Your task to perform on an android device: Show me popular games on the Play Store Image 0: 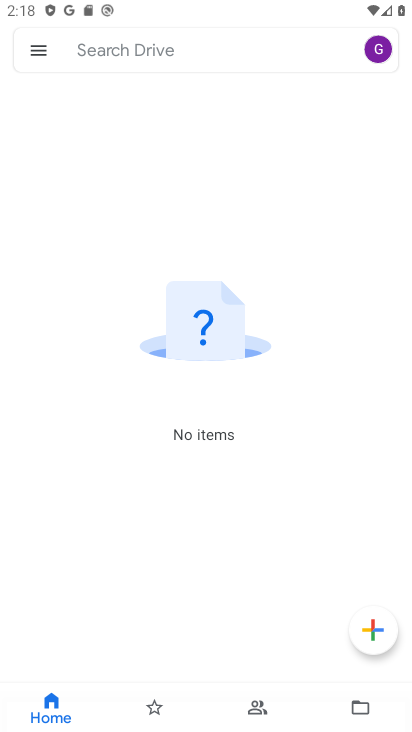
Step 0: press home button
Your task to perform on an android device: Show me popular games on the Play Store Image 1: 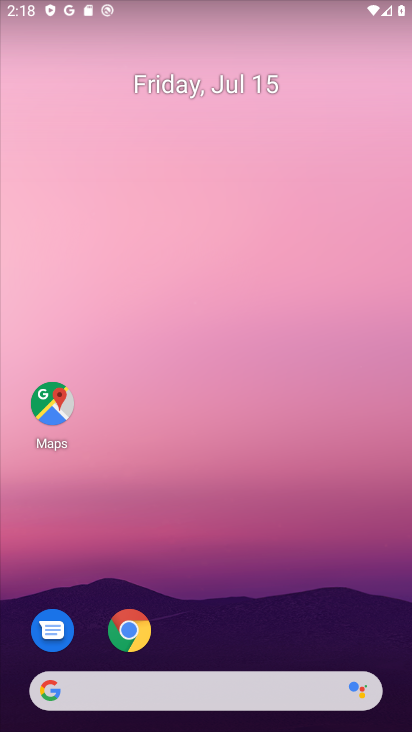
Step 1: drag from (215, 681) to (206, 176)
Your task to perform on an android device: Show me popular games on the Play Store Image 2: 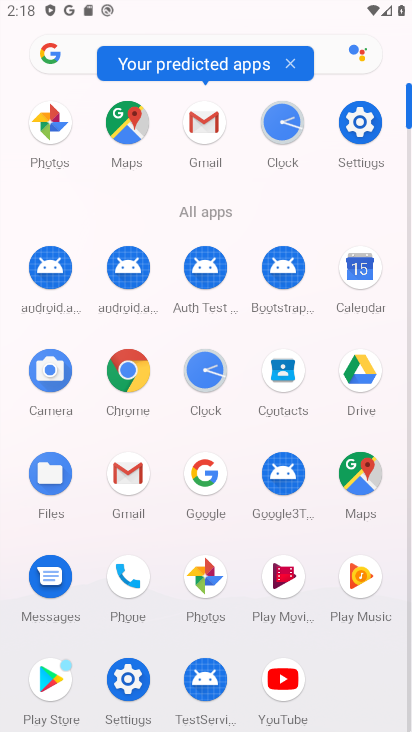
Step 2: click (48, 665)
Your task to perform on an android device: Show me popular games on the Play Store Image 3: 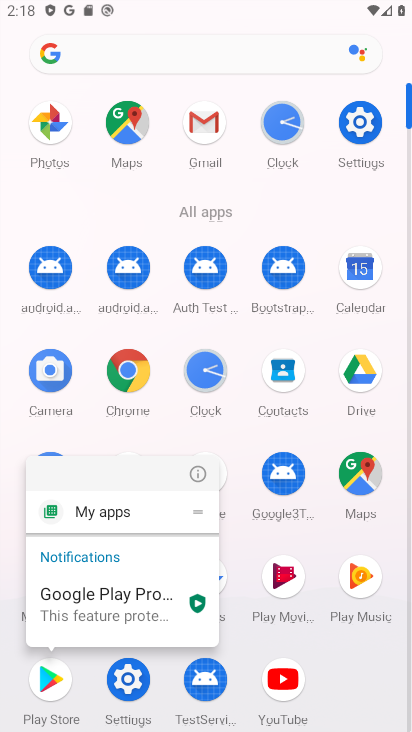
Step 3: click (44, 678)
Your task to perform on an android device: Show me popular games on the Play Store Image 4: 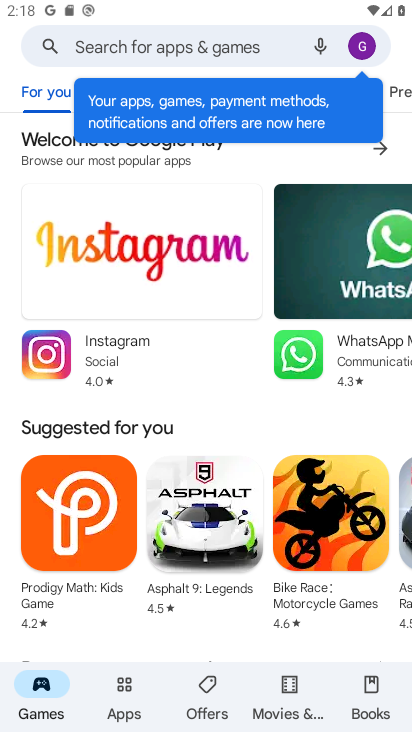
Step 4: drag from (200, 432) to (183, 189)
Your task to perform on an android device: Show me popular games on the Play Store Image 5: 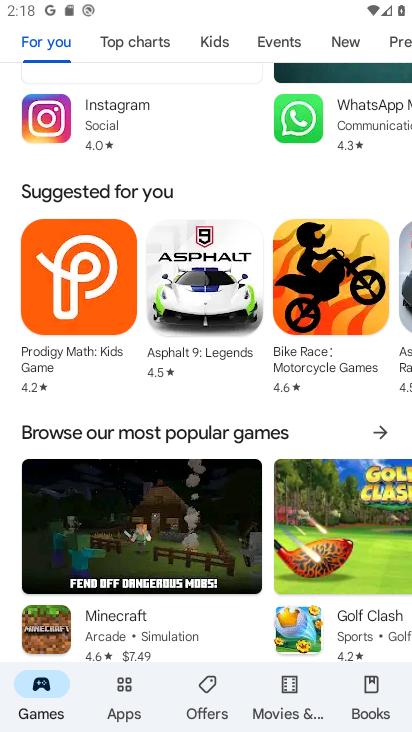
Step 5: click (213, 427)
Your task to perform on an android device: Show me popular games on the Play Store Image 6: 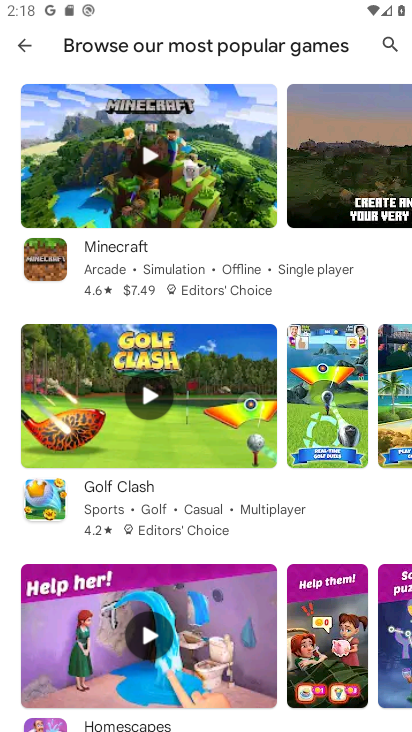
Step 6: task complete